Your task to perform on an android device: Set an alarm for 1pm Image 0: 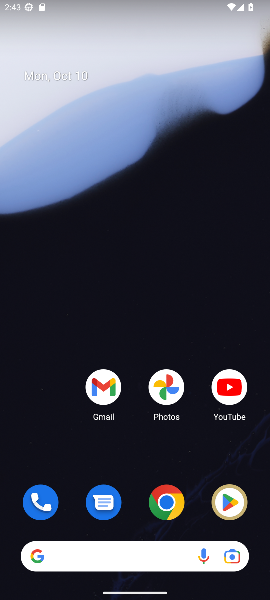
Step 0: drag from (161, 453) to (214, 75)
Your task to perform on an android device: Set an alarm for 1pm Image 1: 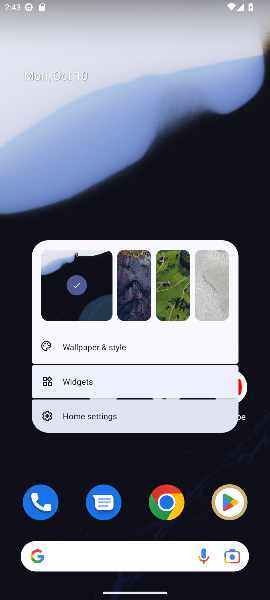
Step 1: click (181, 120)
Your task to perform on an android device: Set an alarm for 1pm Image 2: 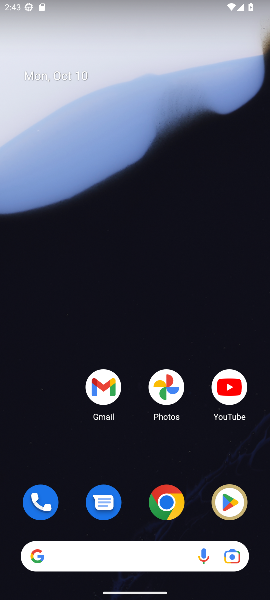
Step 2: drag from (132, 442) to (153, 96)
Your task to perform on an android device: Set an alarm for 1pm Image 3: 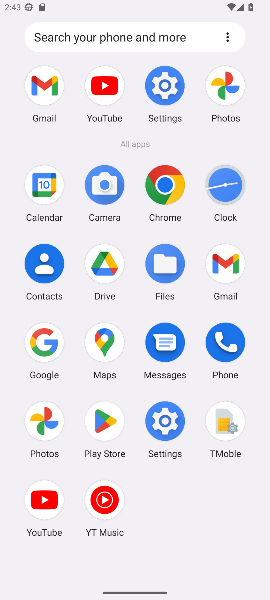
Step 3: click (225, 185)
Your task to perform on an android device: Set an alarm for 1pm Image 4: 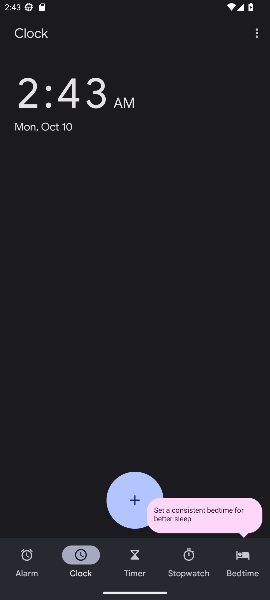
Step 4: click (21, 562)
Your task to perform on an android device: Set an alarm for 1pm Image 5: 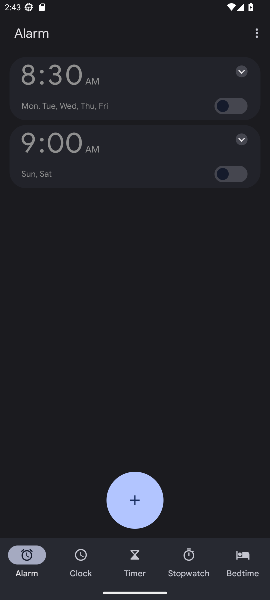
Step 5: click (56, 78)
Your task to perform on an android device: Set an alarm for 1pm Image 6: 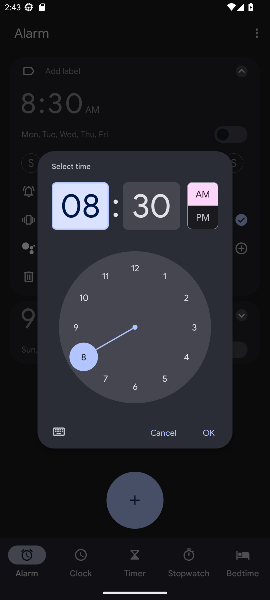
Step 6: click (166, 274)
Your task to perform on an android device: Set an alarm for 1pm Image 7: 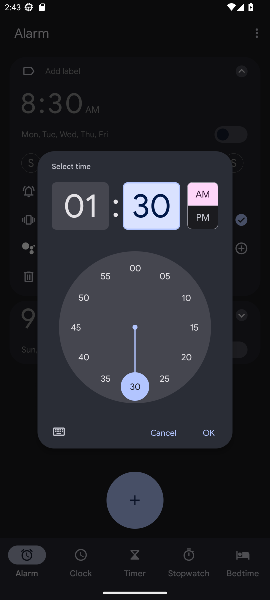
Step 7: click (157, 206)
Your task to perform on an android device: Set an alarm for 1pm Image 8: 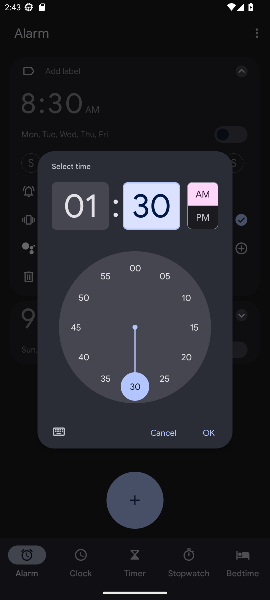
Step 8: click (134, 269)
Your task to perform on an android device: Set an alarm for 1pm Image 9: 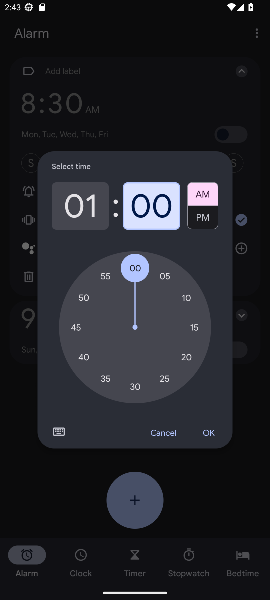
Step 9: click (210, 220)
Your task to perform on an android device: Set an alarm for 1pm Image 10: 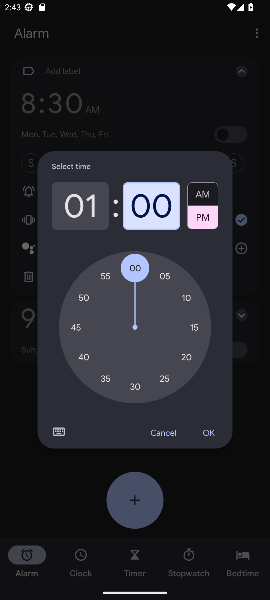
Step 10: click (211, 430)
Your task to perform on an android device: Set an alarm for 1pm Image 11: 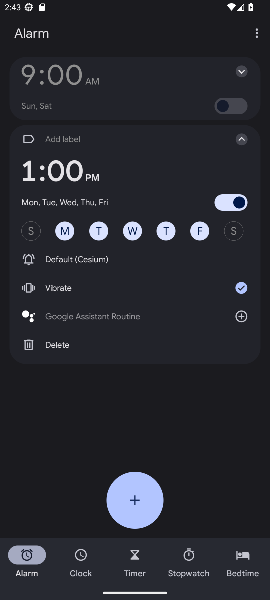
Step 11: task complete